Your task to perform on an android device: turn off picture-in-picture Image 0: 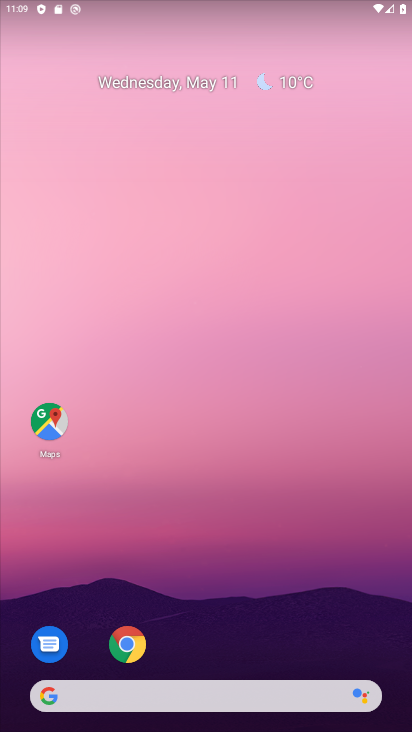
Step 0: click (130, 642)
Your task to perform on an android device: turn off picture-in-picture Image 1: 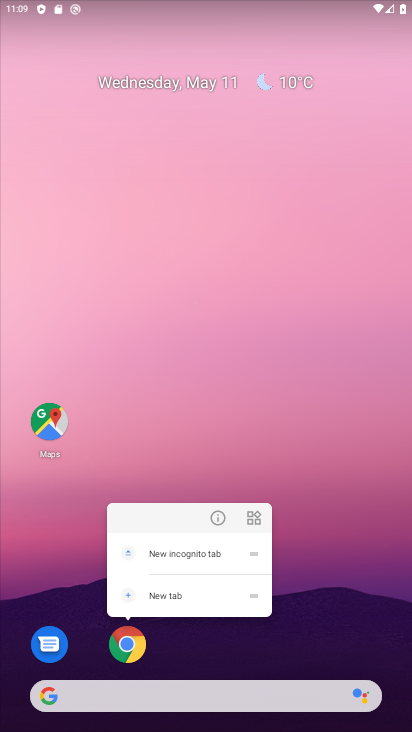
Step 1: click (224, 517)
Your task to perform on an android device: turn off picture-in-picture Image 2: 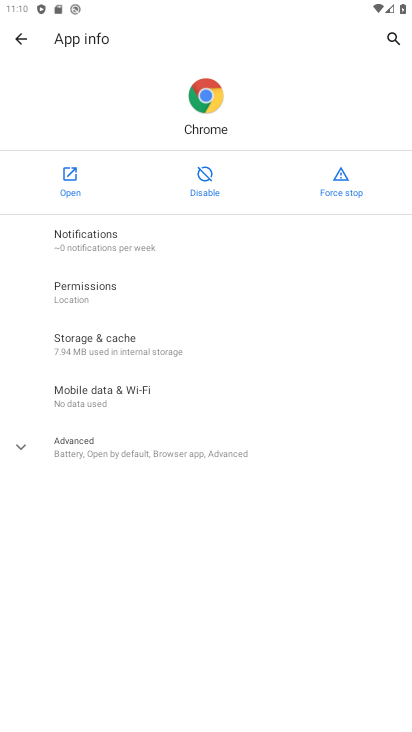
Step 2: click (112, 442)
Your task to perform on an android device: turn off picture-in-picture Image 3: 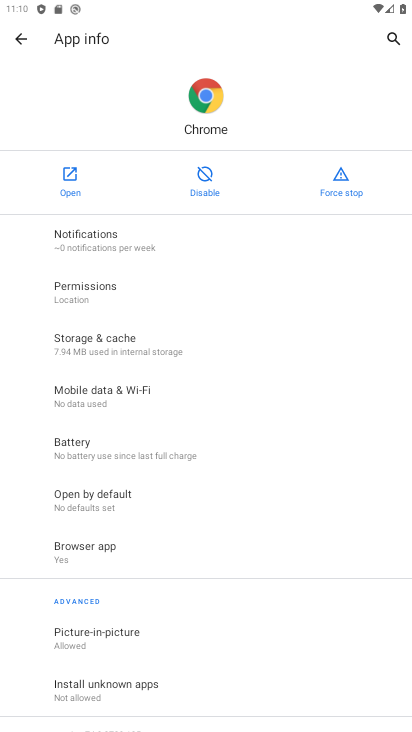
Step 3: task complete